Your task to perform on an android device: see sites visited before in the chrome app Image 0: 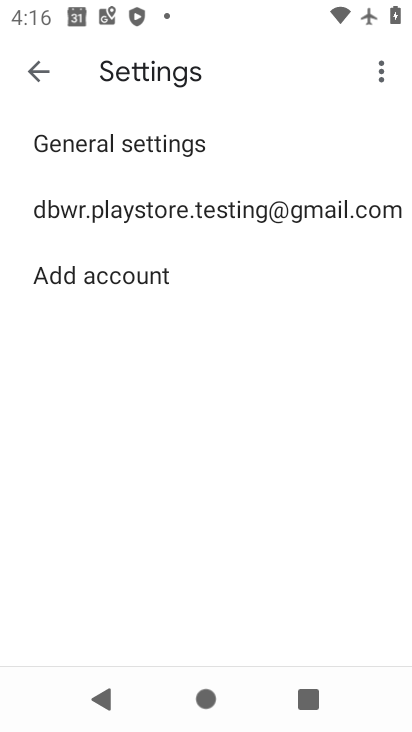
Step 0: press back button
Your task to perform on an android device: see sites visited before in the chrome app Image 1: 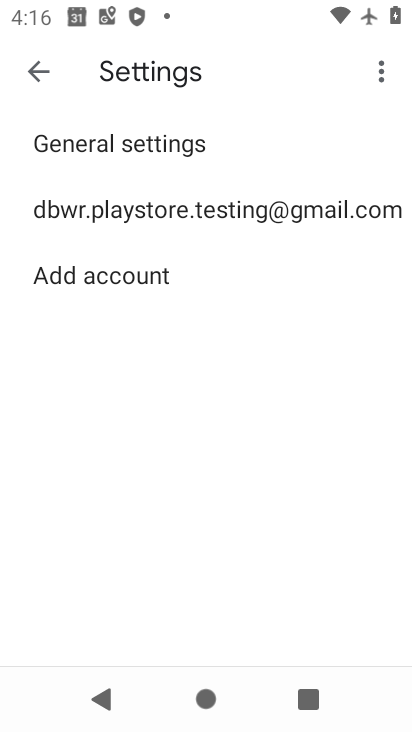
Step 1: press home button
Your task to perform on an android device: see sites visited before in the chrome app Image 2: 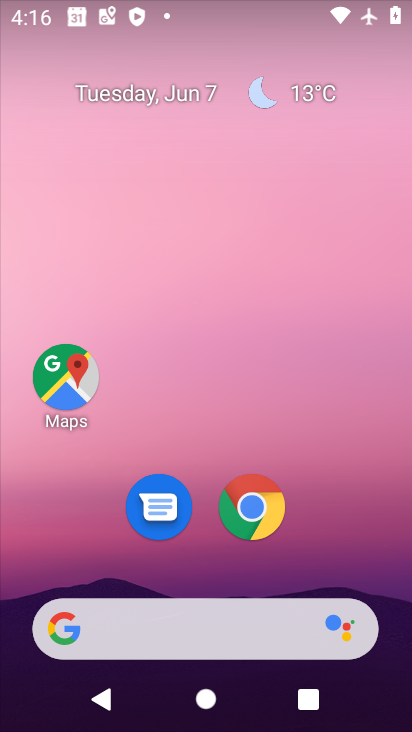
Step 2: drag from (352, 529) to (251, 5)
Your task to perform on an android device: see sites visited before in the chrome app Image 3: 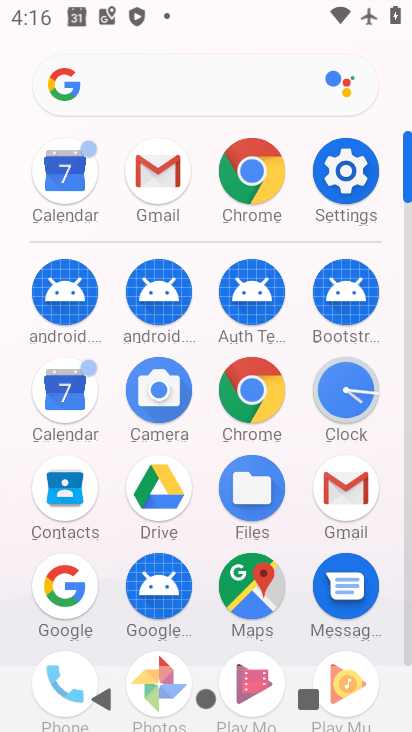
Step 3: drag from (16, 578) to (13, 260)
Your task to perform on an android device: see sites visited before in the chrome app Image 4: 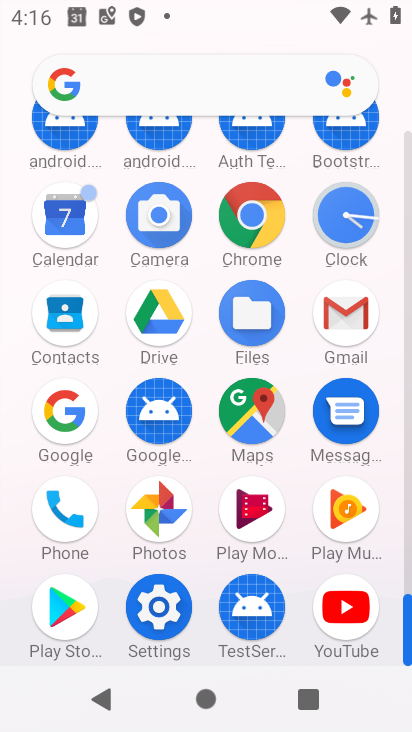
Step 4: click (252, 210)
Your task to perform on an android device: see sites visited before in the chrome app Image 5: 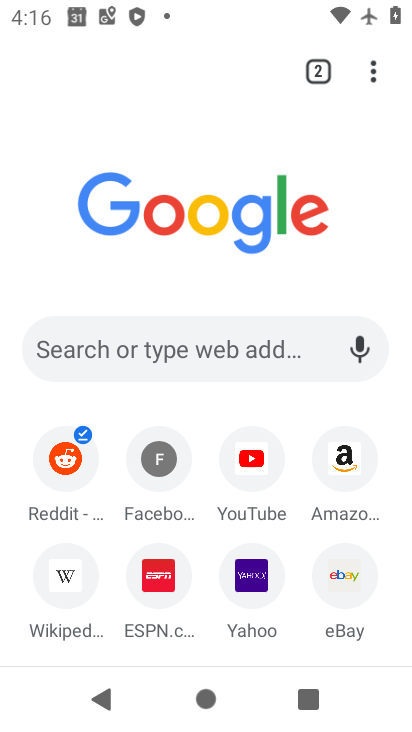
Step 5: task complete